Your task to perform on an android device: open a bookmark in the chrome app Image 0: 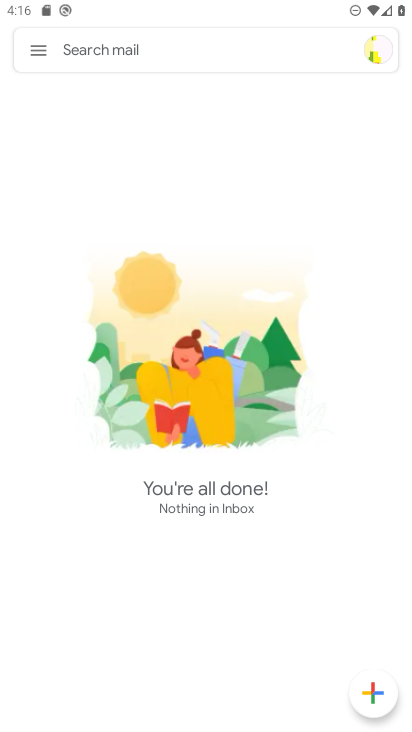
Step 0: click (24, 51)
Your task to perform on an android device: open a bookmark in the chrome app Image 1: 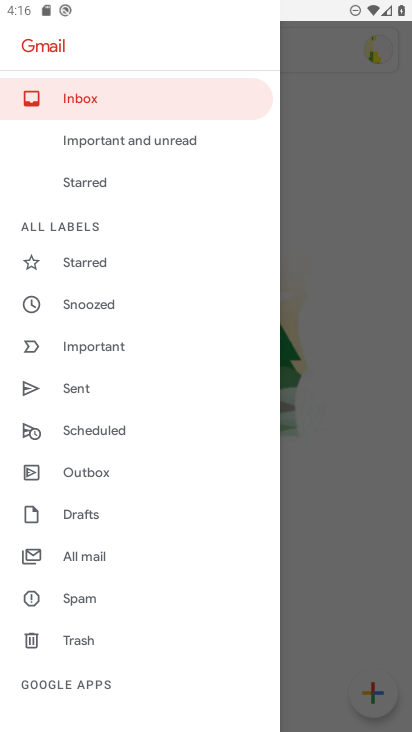
Step 1: press home button
Your task to perform on an android device: open a bookmark in the chrome app Image 2: 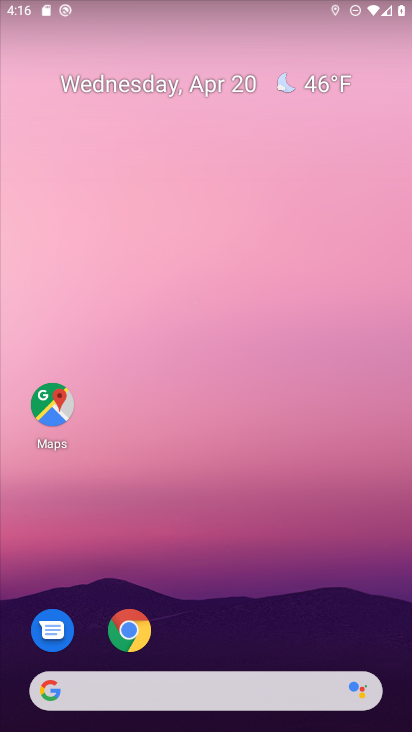
Step 2: drag from (280, 603) to (260, 31)
Your task to perform on an android device: open a bookmark in the chrome app Image 3: 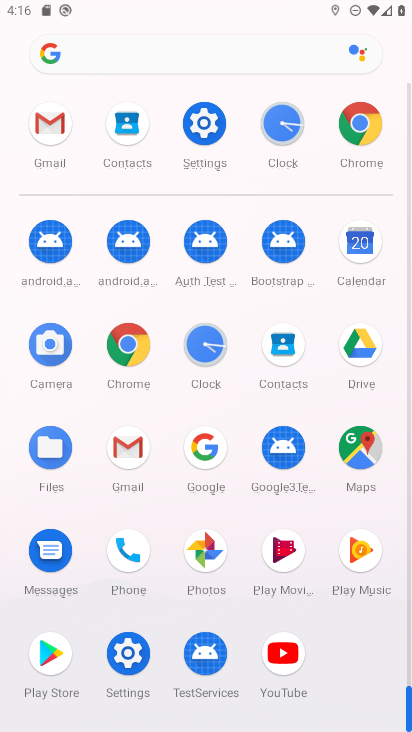
Step 3: click (116, 353)
Your task to perform on an android device: open a bookmark in the chrome app Image 4: 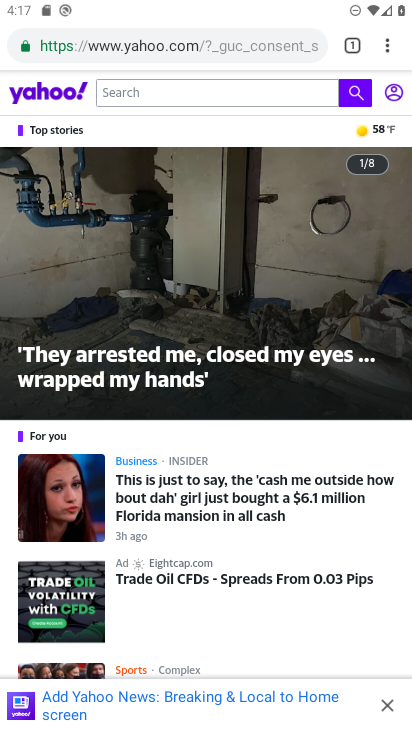
Step 4: task complete